Your task to perform on an android device: toggle location history Image 0: 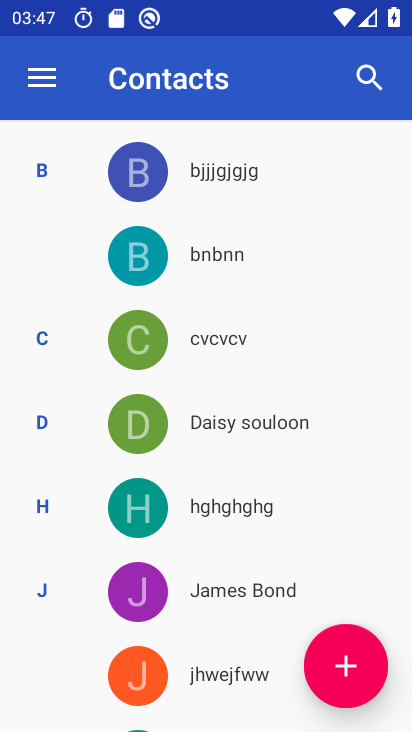
Step 0: press home button
Your task to perform on an android device: toggle location history Image 1: 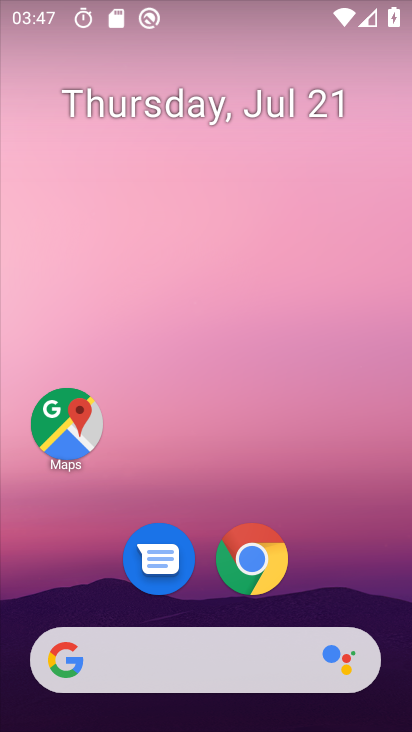
Step 1: drag from (365, 564) to (369, 86)
Your task to perform on an android device: toggle location history Image 2: 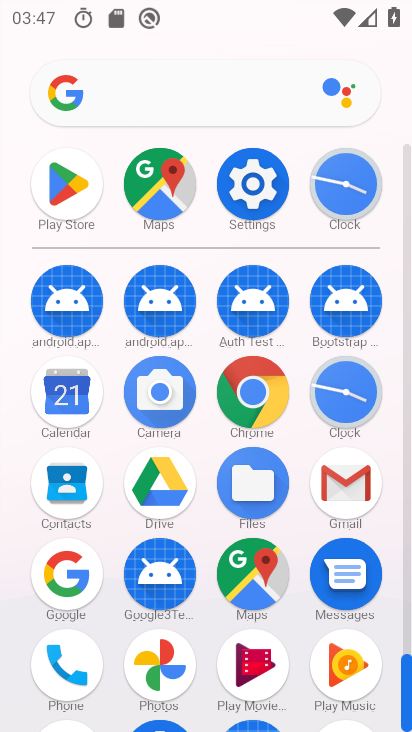
Step 2: click (259, 190)
Your task to perform on an android device: toggle location history Image 3: 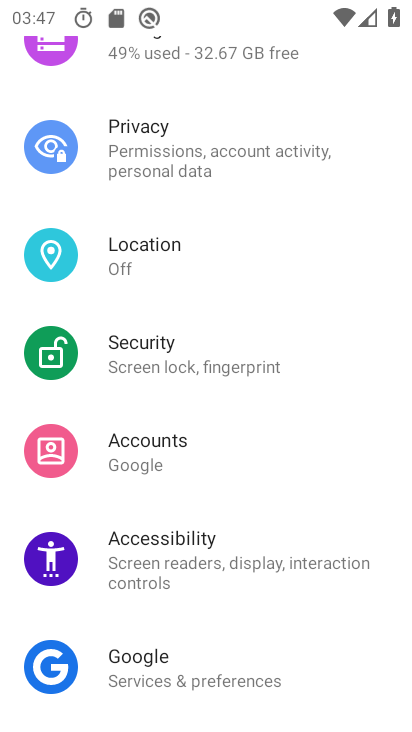
Step 3: drag from (284, 240) to (309, 351)
Your task to perform on an android device: toggle location history Image 4: 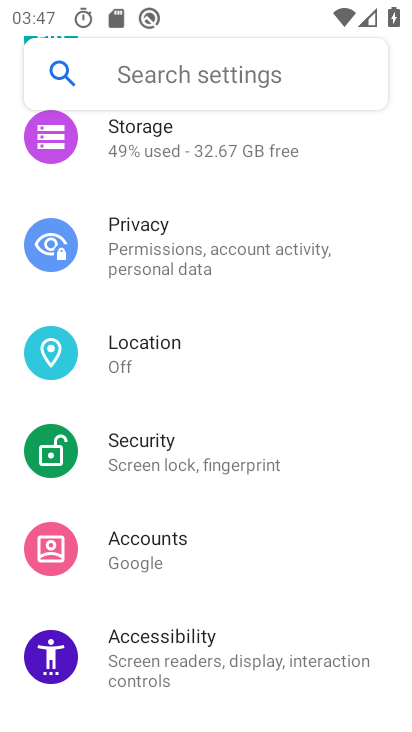
Step 4: drag from (320, 281) to (330, 399)
Your task to perform on an android device: toggle location history Image 5: 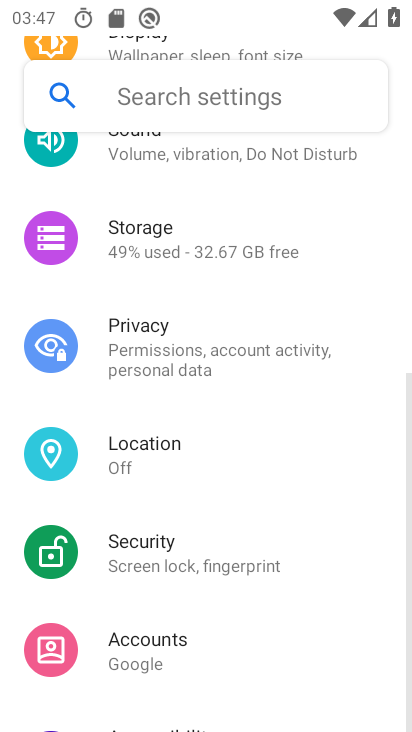
Step 5: drag from (323, 292) to (335, 501)
Your task to perform on an android device: toggle location history Image 6: 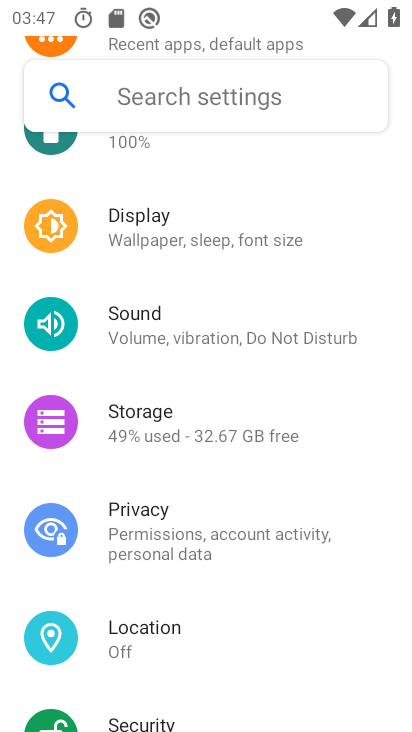
Step 6: click (175, 631)
Your task to perform on an android device: toggle location history Image 7: 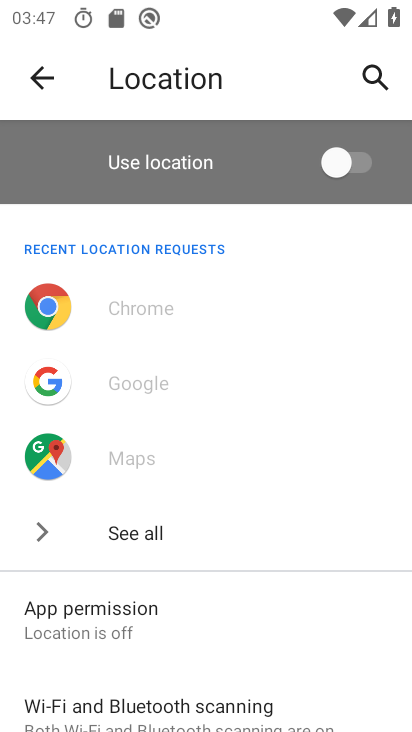
Step 7: drag from (220, 635) to (243, 474)
Your task to perform on an android device: toggle location history Image 8: 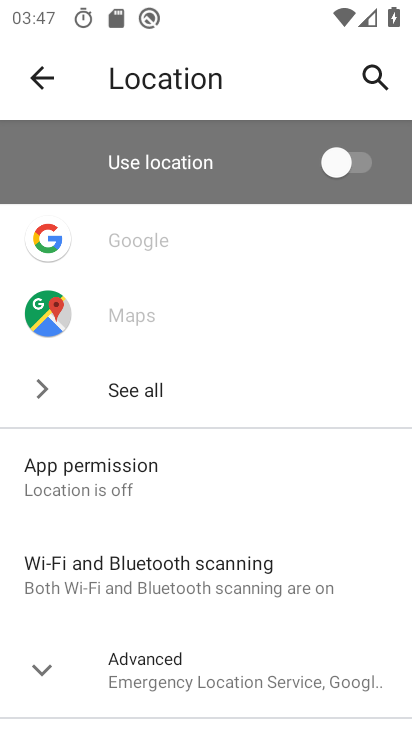
Step 8: drag from (265, 631) to (271, 431)
Your task to perform on an android device: toggle location history Image 9: 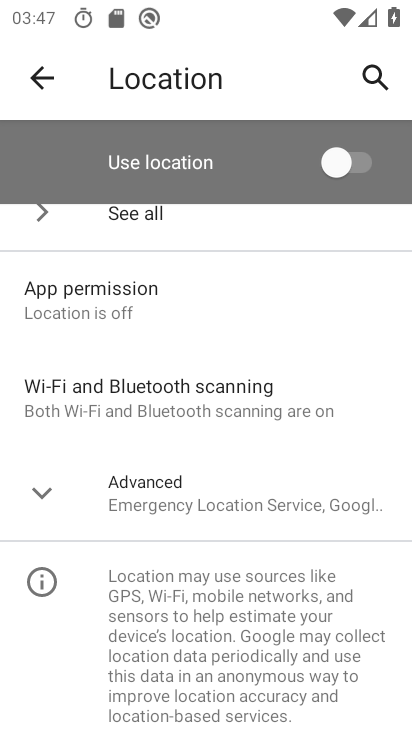
Step 9: click (264, 487)
Your task to perform on an android device: toggle location history Image 10: 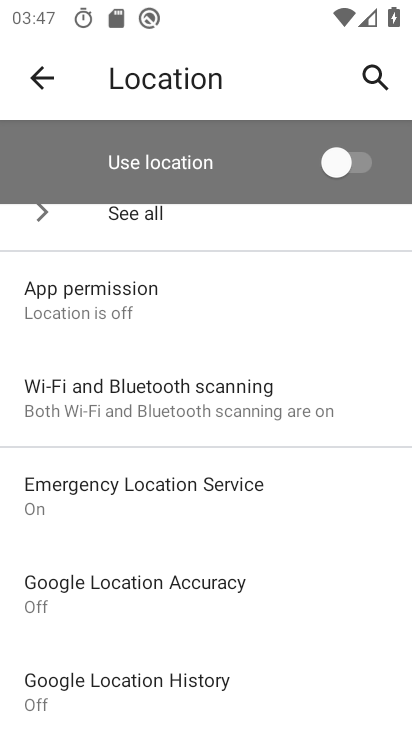
Step 10: drag from (323, 549) to (325, 459)
Your task to perform on an android device: toggle location history Image 11: 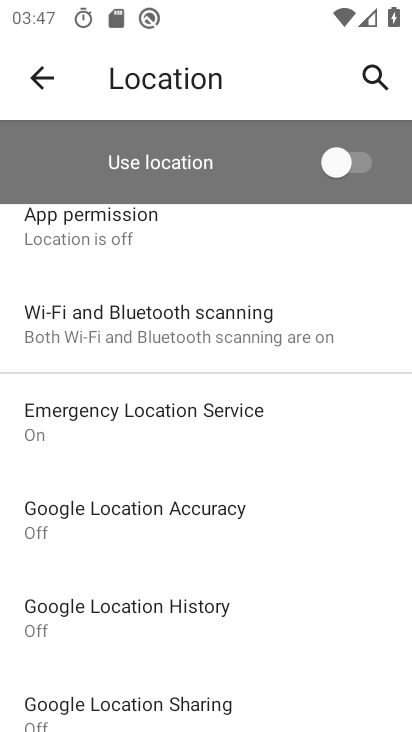
Step 11: drag from (334, 562) to (333, 443)
Your task to perform on an android device: toggle location history Image 12: 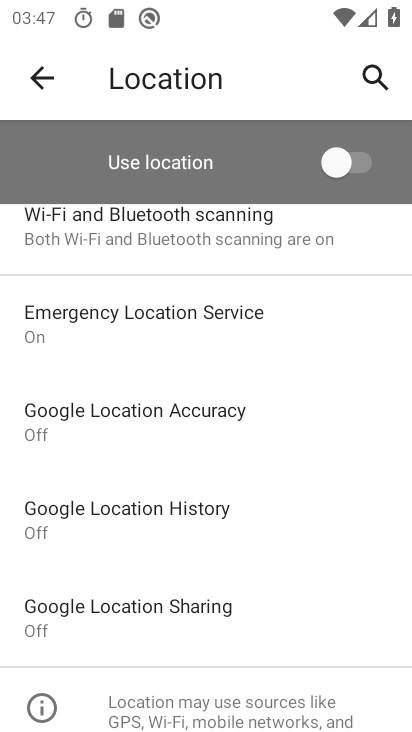
Step 12: click (299, 511)
Your task to perform on an android device: toggle location history Image 13: 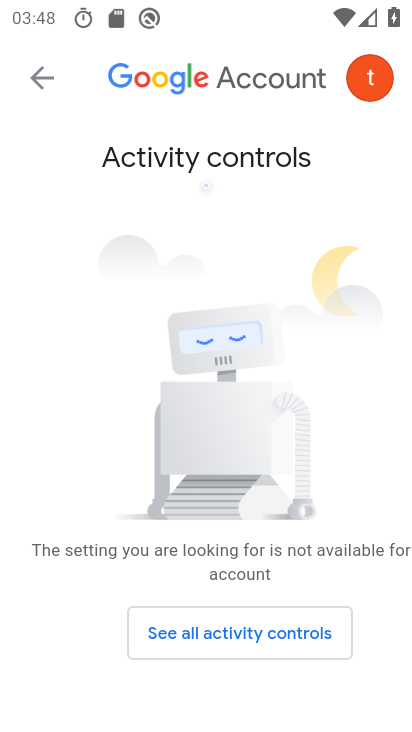
Step 13: click (313, 627)
Your task to perform on an android device: toggle location history Image 14: 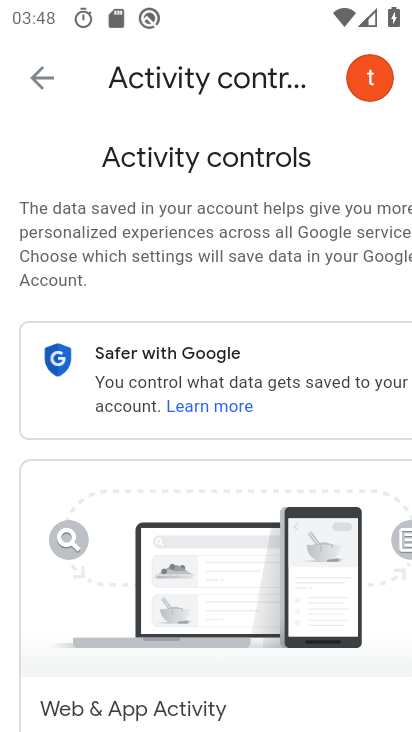
Step 14: drag from (287, 530) to (278, 388)
Your task to perform on an android device: toggle location history Image 15: 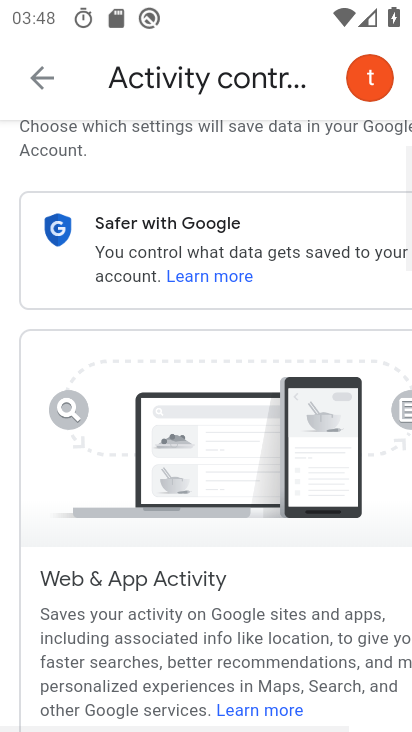
Step 15: drag from (257, 538) to (270, 383)
Your task to perform on an android device: toggle location history Image 16: 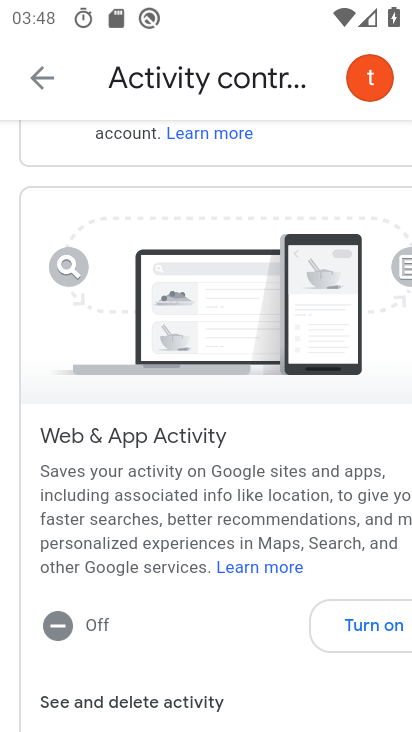
Step 16: drag from (242, 565) to (245, 441)
Your task to perform on an android device: toggle location history Image 17: 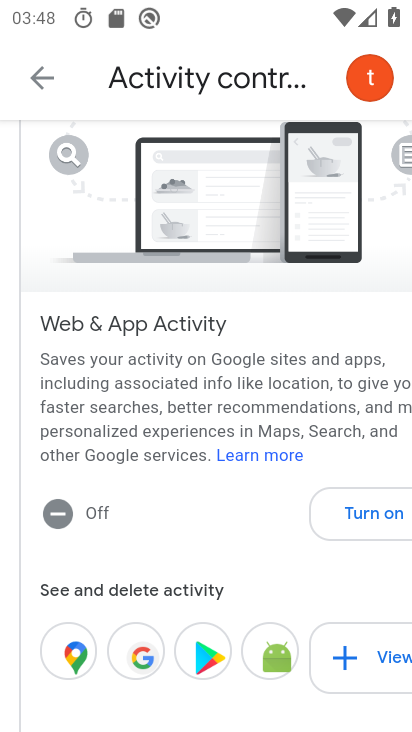
Step 17: click (365, 517)
Your task to perform on an android device: toggle location history Image 18: 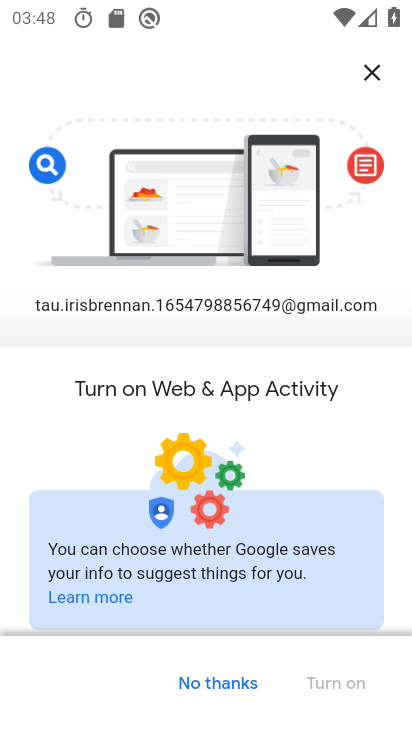
Step 18: drag from (280, 489) to (279, 367)
Your task to perform on an android device: toggle location history Image 19: 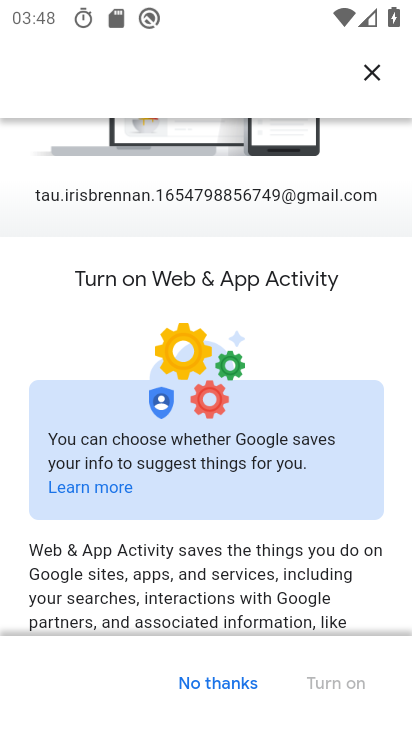
Step 19: drag from (292, 521) to (289, 344)
Your task to perform on an android device: toggle location history Image 20: 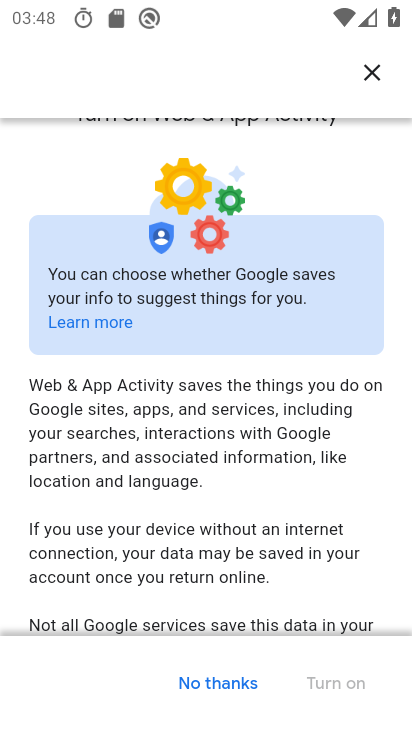
Step 20: drag from (303, 528) to (310, 355)
Your task to perform on an android device: toggle location history Image 21: 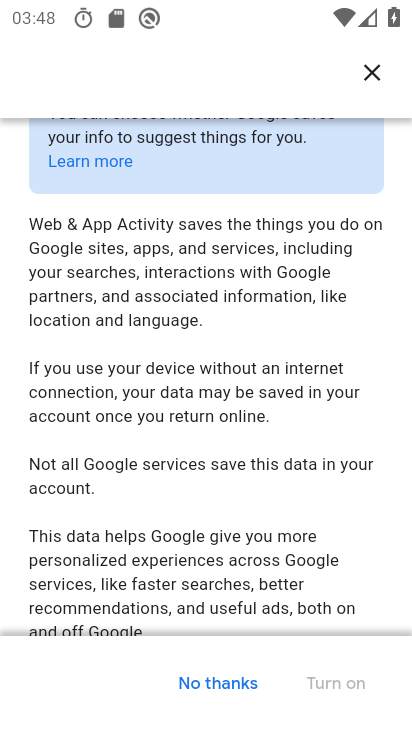
Step 21: drag from (317, 552) to (320, 319)
Your task to perform on an android device: toggle location history Image 22: 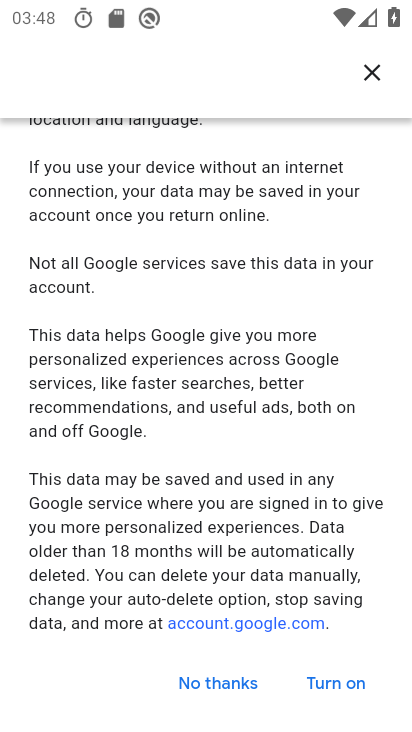
Step 22: click (343, 694)
Your task to perform on an android device: toggle location history Image 23: 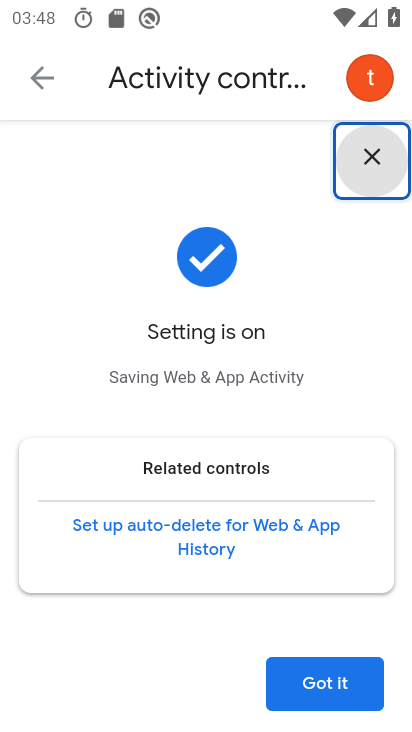
Step 23: task complete